Your task to perform on an android device: check data usage Image 0: 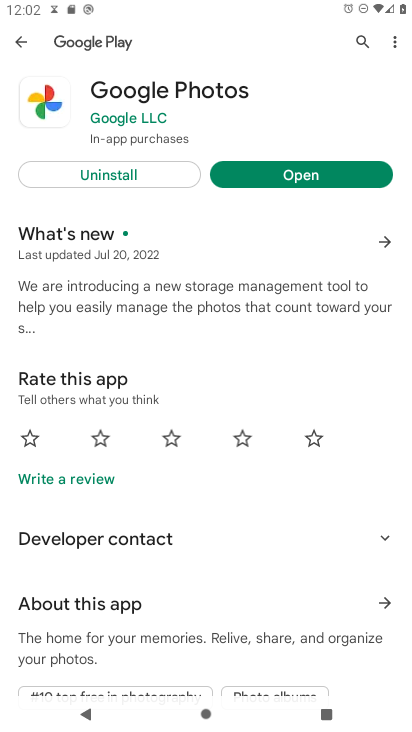
Step 0: press home button
Your task to perform on an android device: check data usage Image 1: 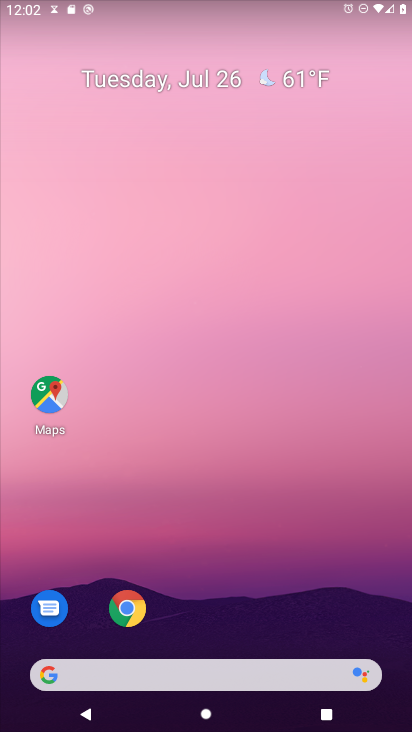
Step 1: drag from (206, 676) to (296, 46)
Your task to perform on an android device: check data usage Image 2: 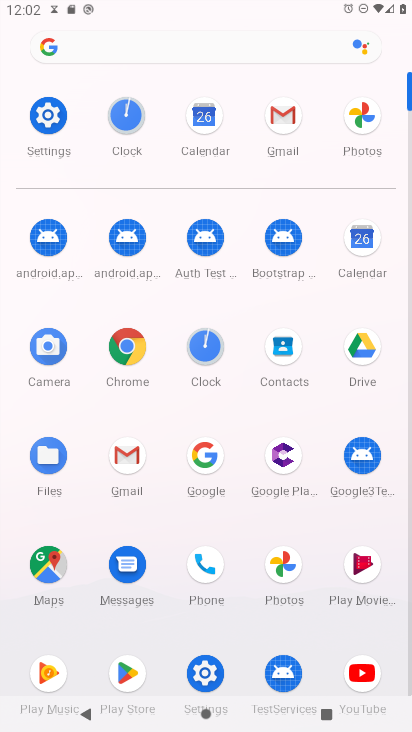
Step 2: click (48, 114)
Your task to perform on an android device: check data usage Image 3: 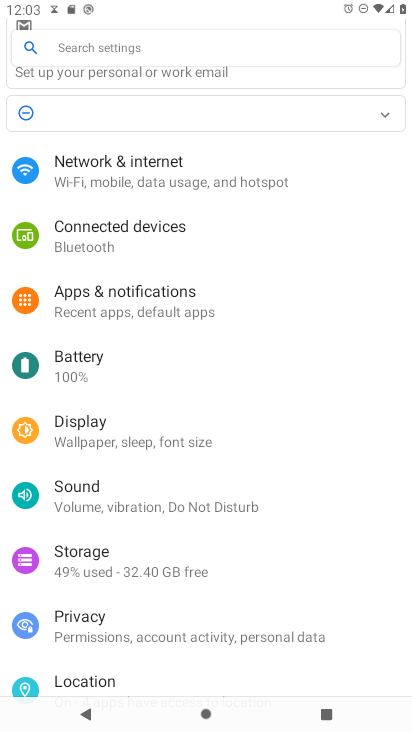
Step 3: click (166, 164)
Your task to perform on an android device: check data usage Image 4: 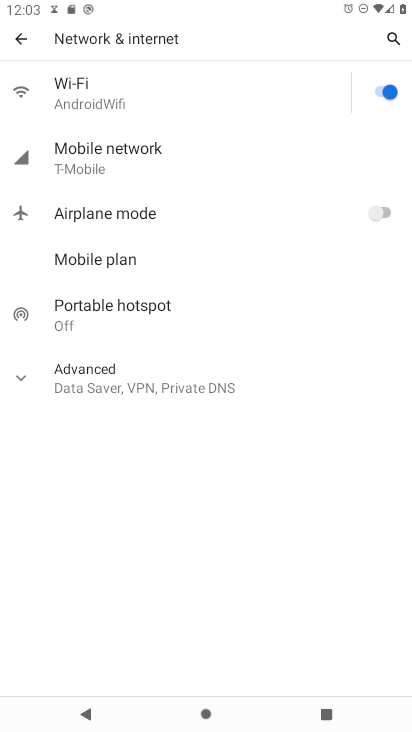
Step 4: click (123, 152)
Your task to perform on an android device: check data usage Image 5: 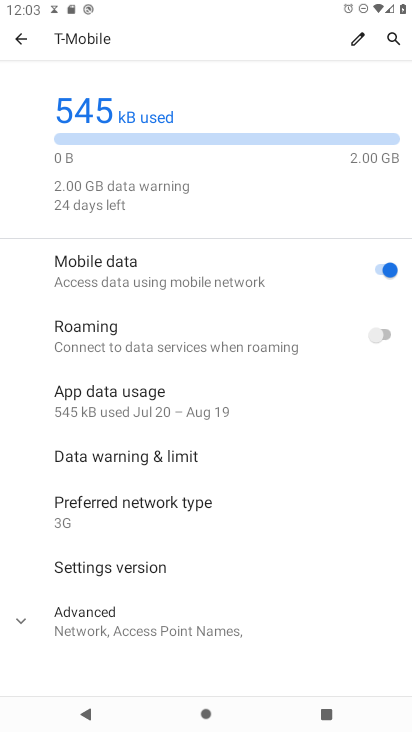
Step 5: task complete